Your task to perform on an android device: change your default location settings in chrome Image 0: 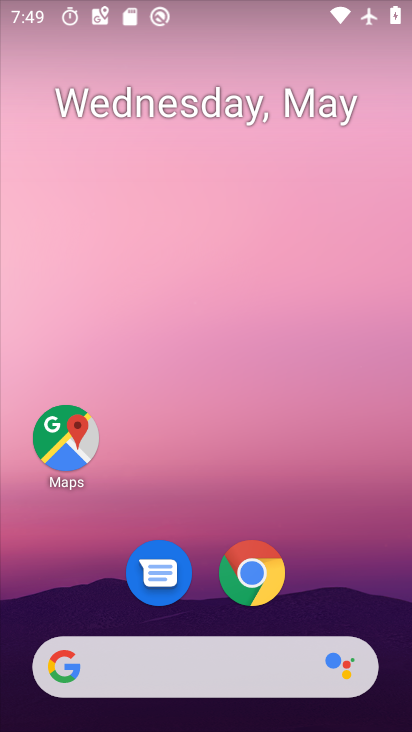
Step 0: click (262, 576)
Your task to perform on an android device: change your default location settings in chrome Image 1: 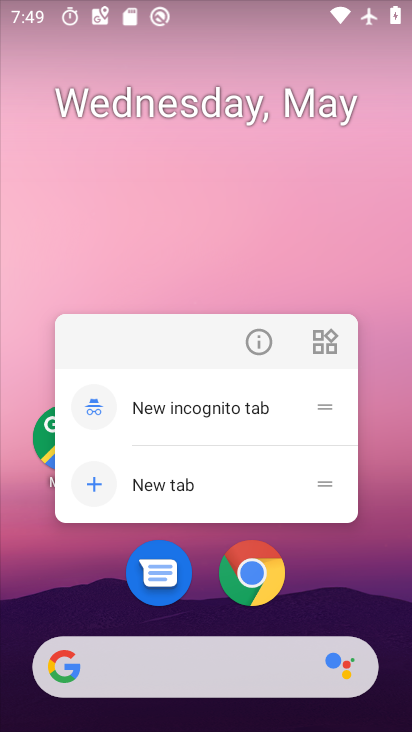
Step 1: click (262, 575)
Your task to perform on an android device: change your default location settings in chrome Image 2: 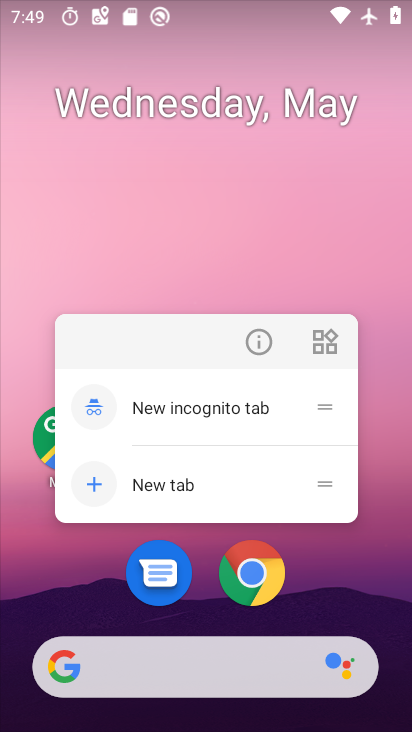
Step 2: click (260, 574)
Your task to perform on an android device: change your default location settings in chrome Image 3: 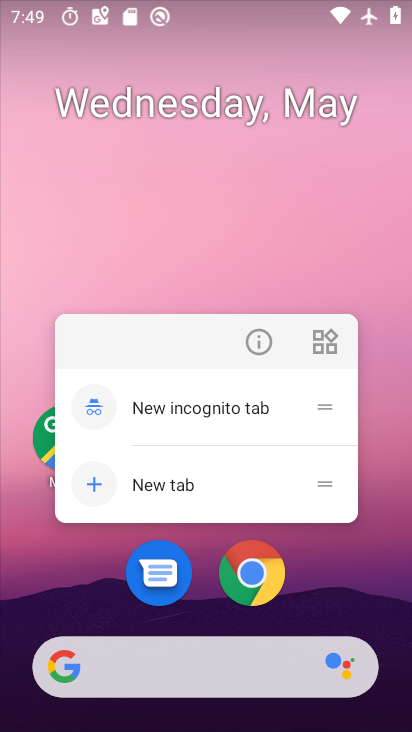
Step 3: click (238, 573)
Your task to perform on an android device: change your default location settings in chrome Image 4: 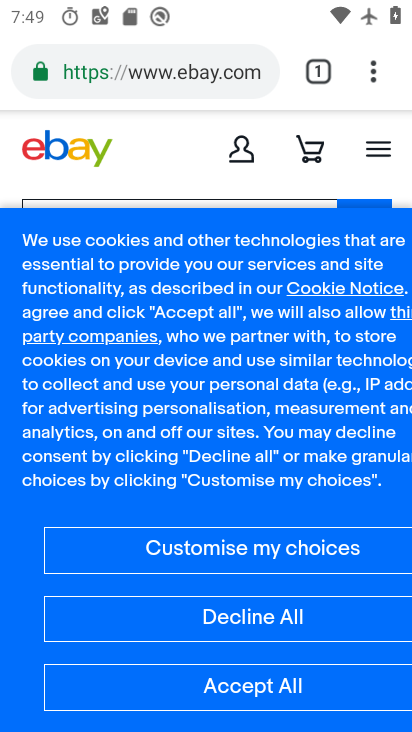
Step 4: click (364, 82)
Your task to perform on an android device: change your default location settings in chrome Image 5: 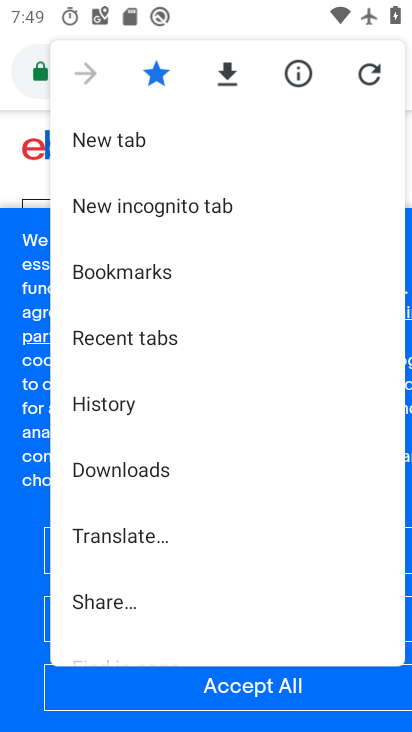
Step 5: drag from (214, 588) to (182, 217)
Your task to perform on an android device: change your default location settings in chrome Image 6: 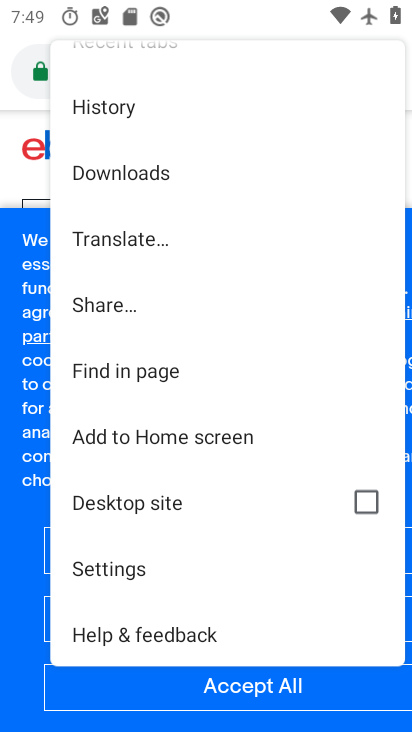
Step 6: click (146, 583)
Your task to perform on an android device: change your default location settings in chrome Image 7: 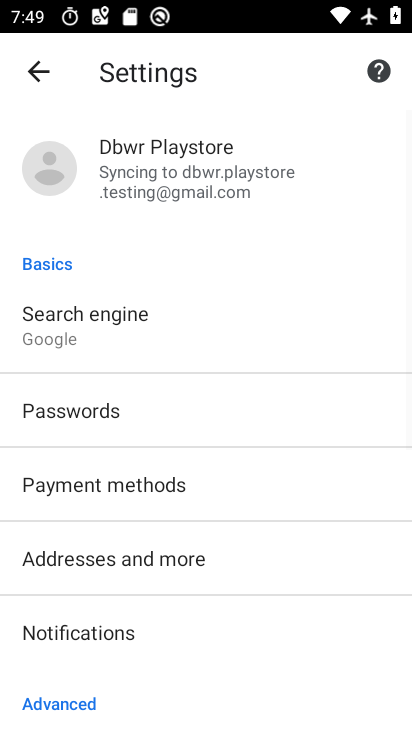
Step 7: drag from (182, 675) to (184, 401)
Your task to perform on an android device: change your default location settings in chrome Image 8: 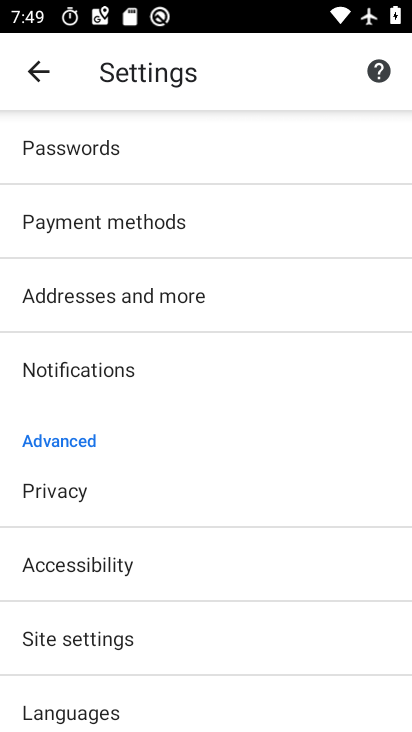
Step 8: click (132, 647)
Your task to perform on an android device: change your default location settings in chrome Image 9: 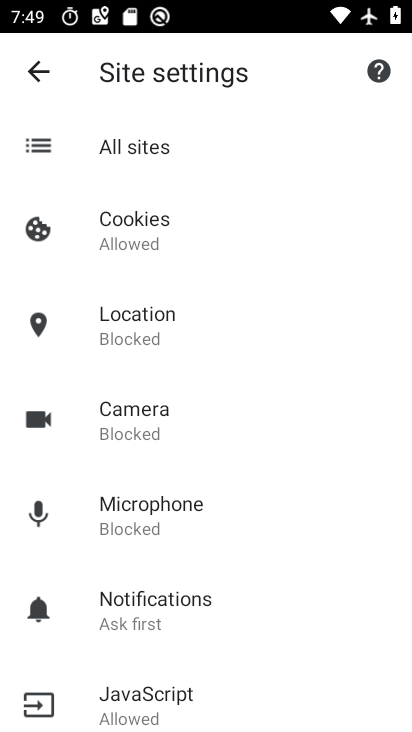
Step 9: click (176, 306)
Your task to perform on an android device: change your default location settings in chrome Image 10: 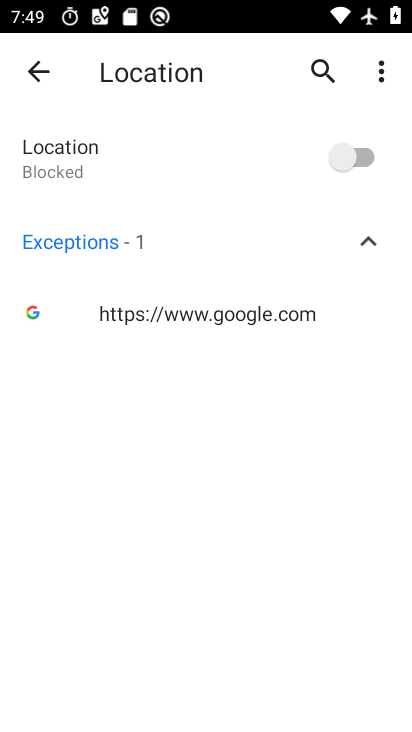
Step 10: click (362, 159)
Your task to perform on an android device: change your default location settings in chrome Image 11: 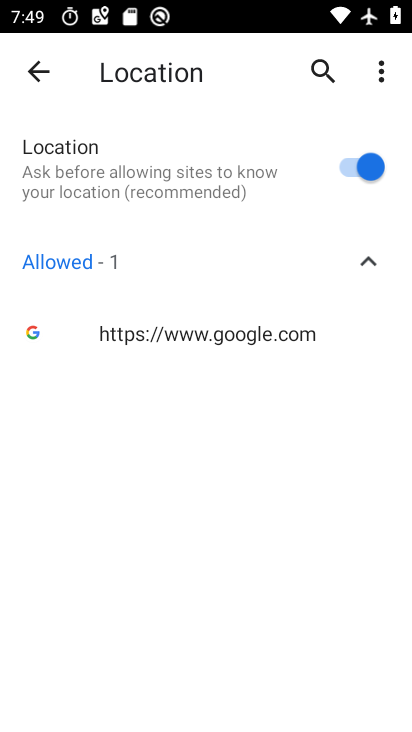
Step 11: task complete